Your task to perform on an android device: When is my next meeting? Image 0: 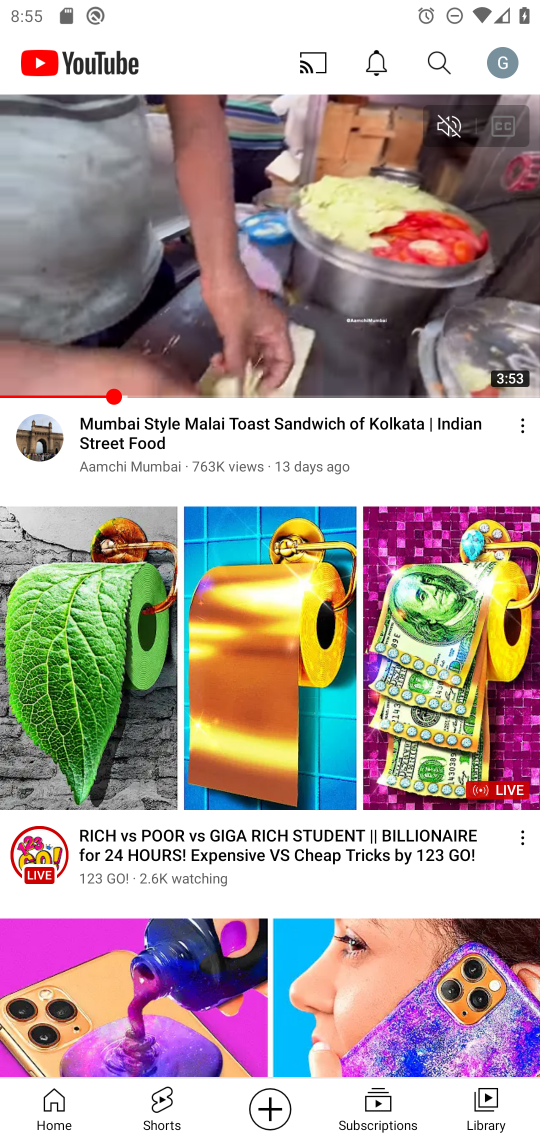
Step 0: press home button
Your task to perform on an android device: When is my next meeting? Image 1: 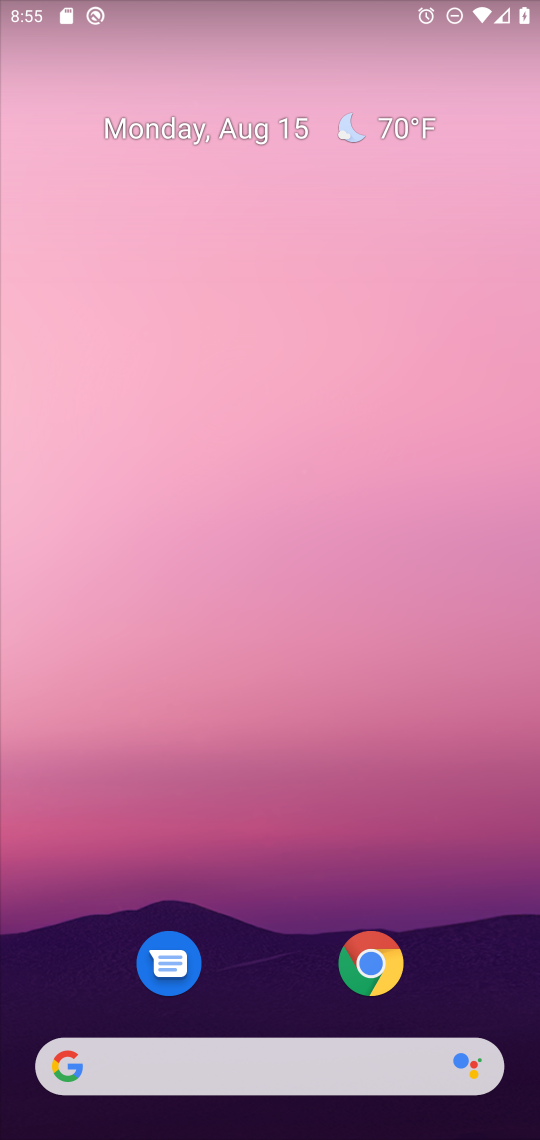
Step 1: click (236, 145)
Your task to perform on an android device: When is my next meeting? Image 2: 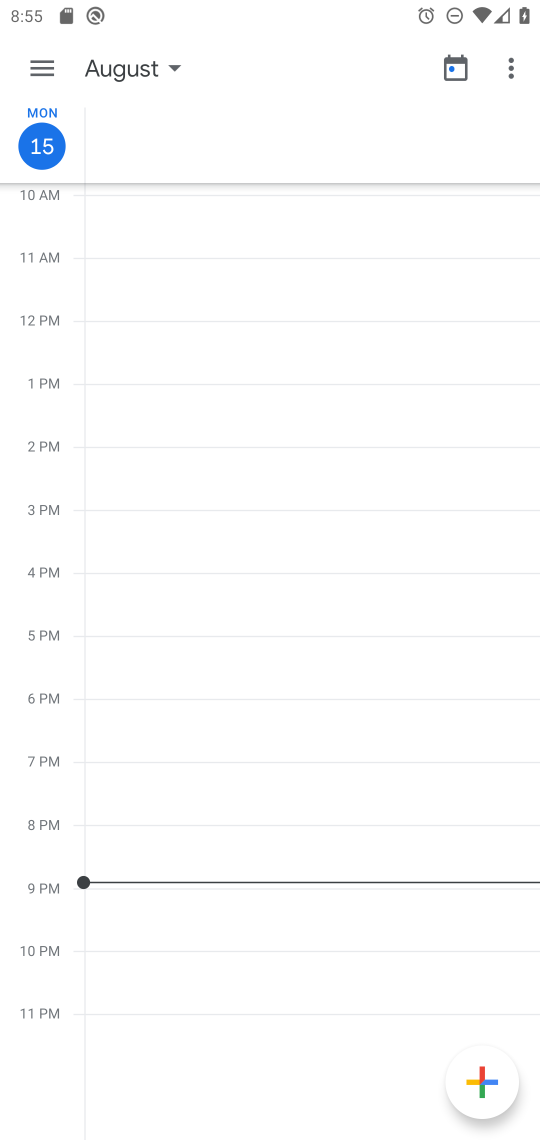
Step 2: task complete